Your task to perform on an android device: Open Wikipedia Image 0: 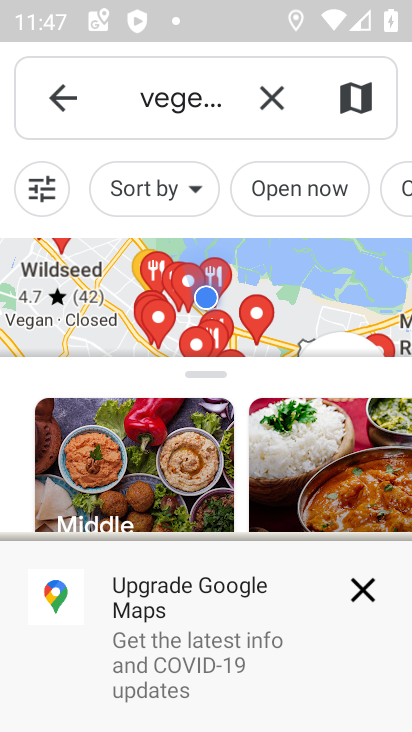
Step 0: press home button
Your task to perform on an android device: Open Wikipedia Image 1: 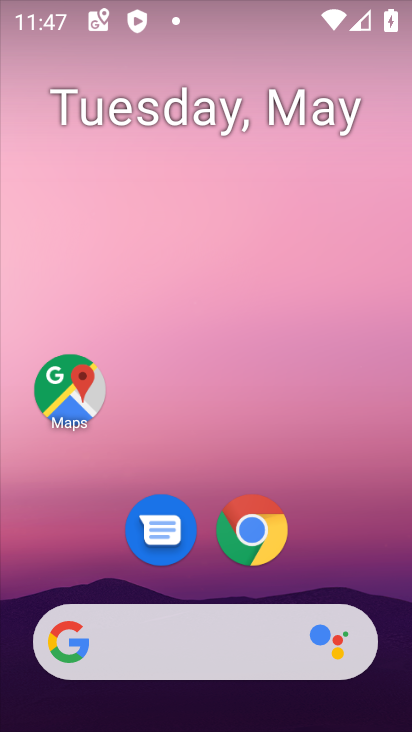
Step 1: click (246, 535)
Your task to perform on an android device: Open Wikipedia Image 2: 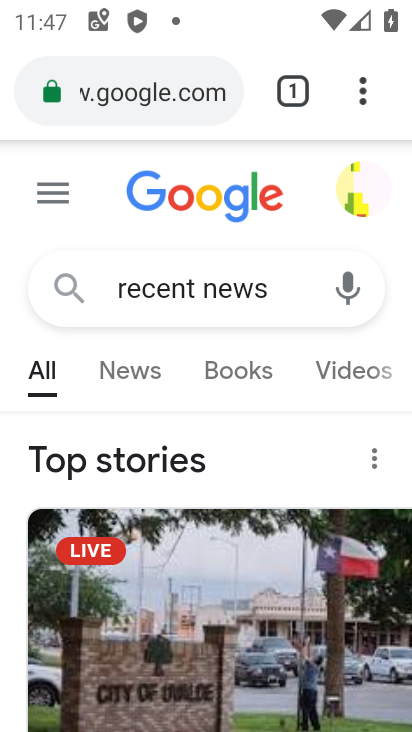
Step 2: click (170, 102)
Your task to perform on an android device: Open Wikipedia Image 3: 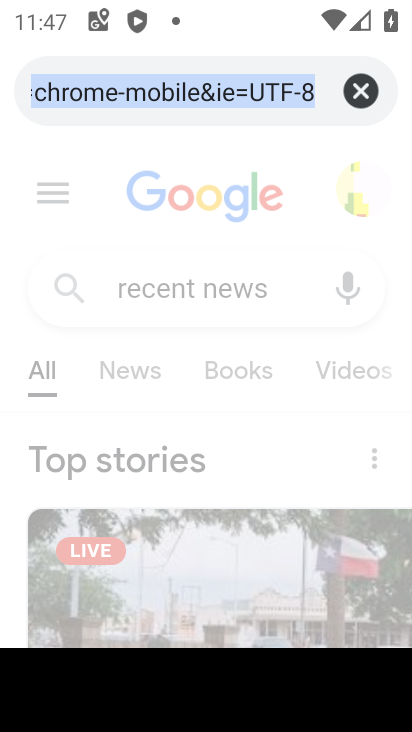
Step 3: type "Wikipedia"
Your task to perform on an android device: Open Wikipedia Image 4: 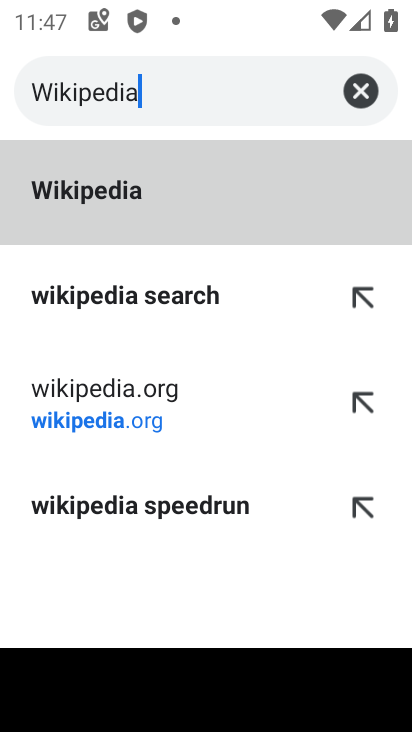
Step 4: click (223, 221)
Your task to perform on an android device: Open Wikipedia Image 5: 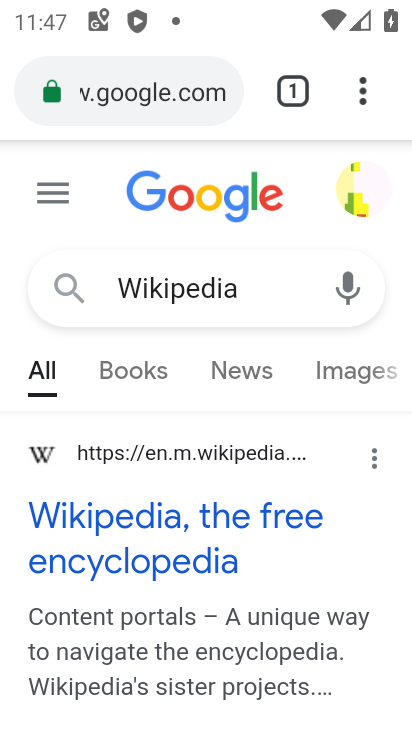
Step 5: task complete